Your task to perform on an android device: change the upload size in google photos Image 0: 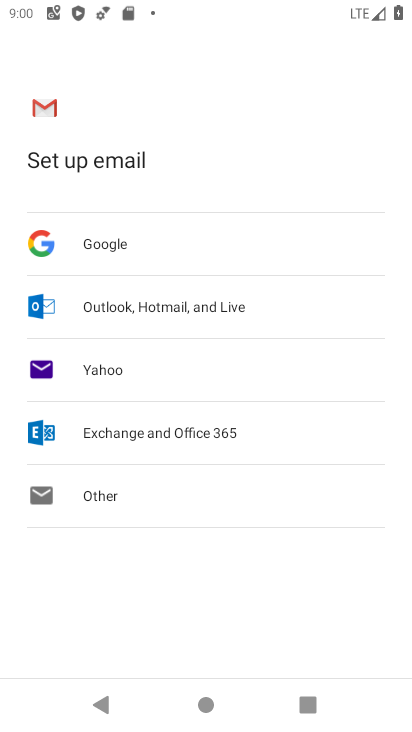
Step 0: press home button
Your task to perform on an android device: change the upload size in google photos Image 1: 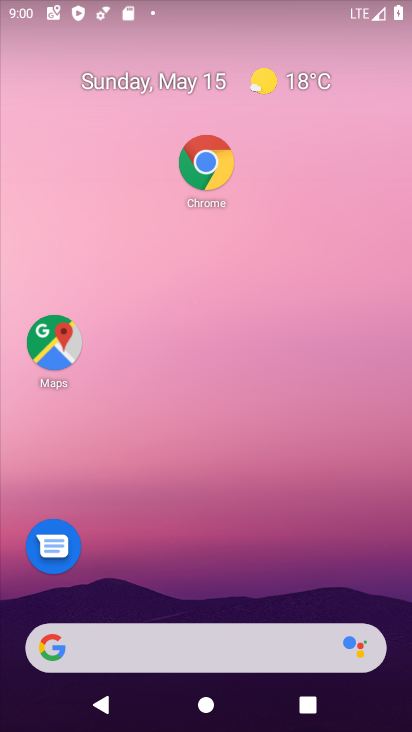
Step 1: drag from (277, 557) to (281, 250)
Your task to perform on an android device: change the upload size in google photos Image 2: 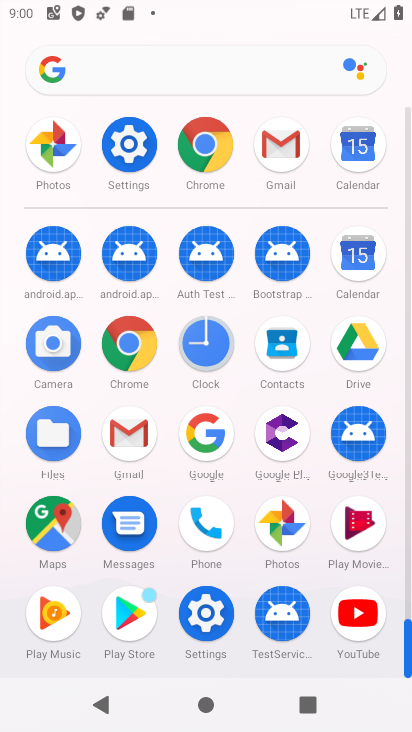
Step 2: click (284, 512)
Your task to perform on an android device: change the upload size in google photos Image 3: 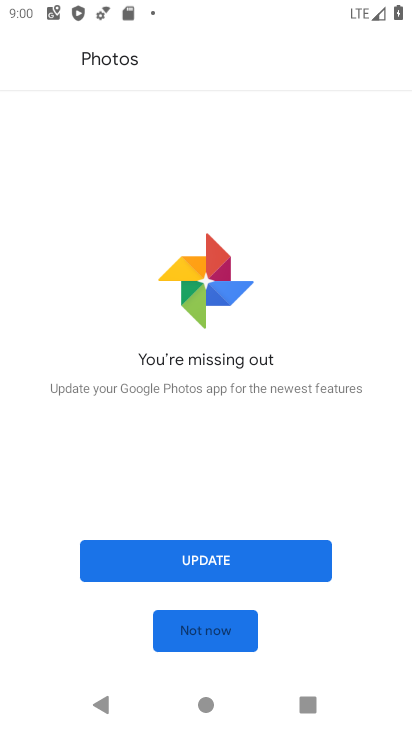
Step 3: click (225, 619)
Your task to perform on an android device: change the upload size in google photos Image 4: 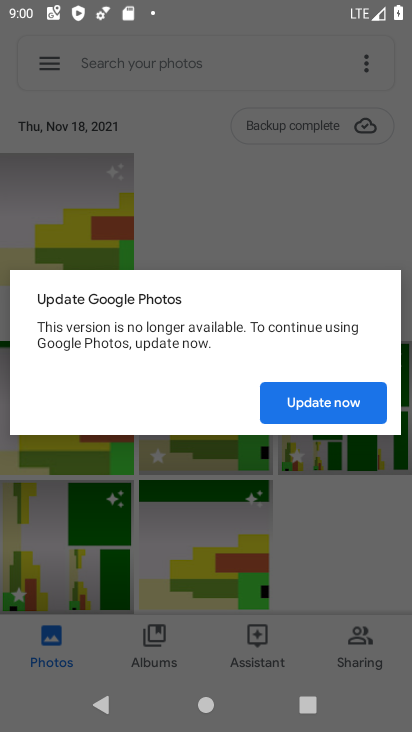
Step 4: click (311, 399)
Your task to perform on an android device: change the upload size in google photos Image 5: 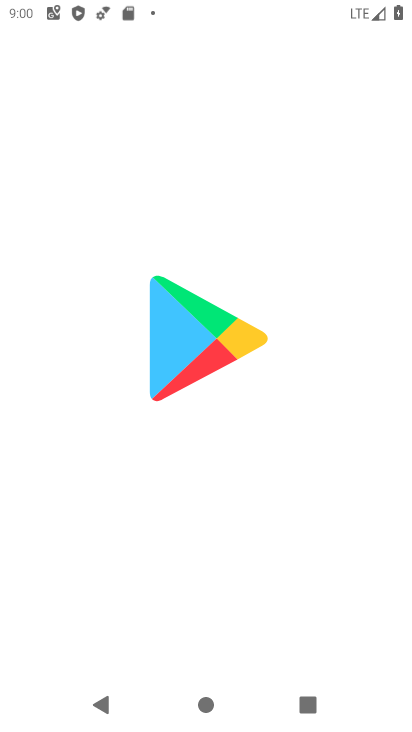
Step 5: press back button
Your task to perform on an android device: change the upload size in google photos Image 6: 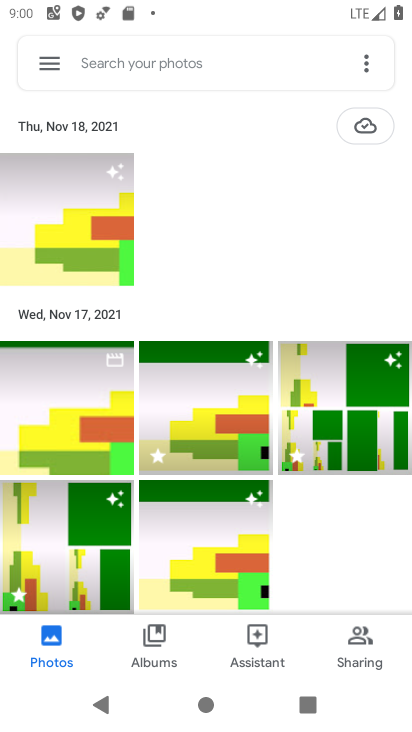
Step 6: click (43, 58)
Your task to perform on an android device: change the upload size in google photos Image 7: 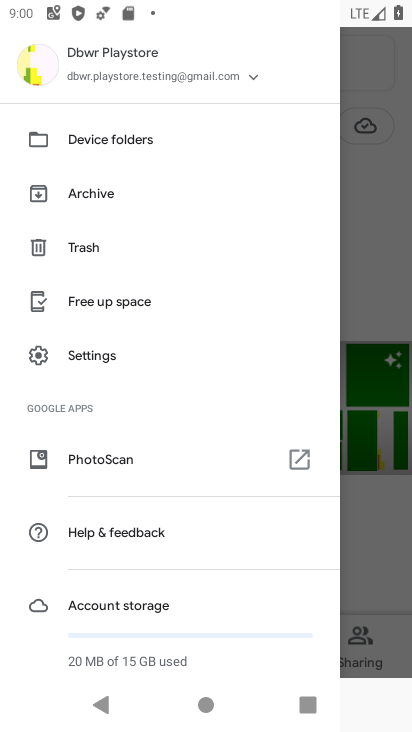
Step 7: click (133, 334)
Your task to perform on an android device: change the upload size in google photos Image 8: 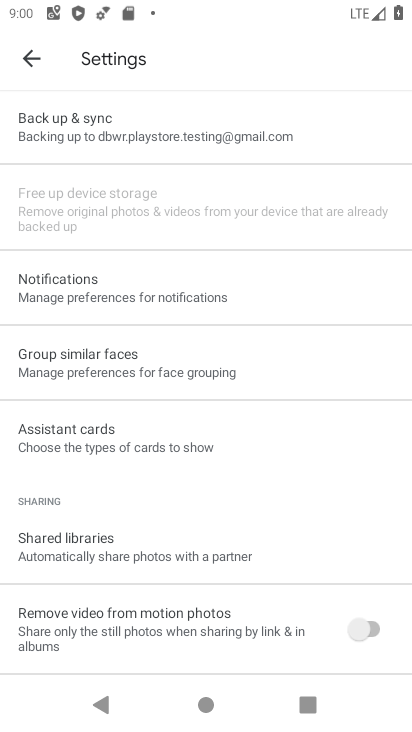
Step 8: click (135, 123)
Your task to perform on an android device: change the upload size in google photos Image 9: 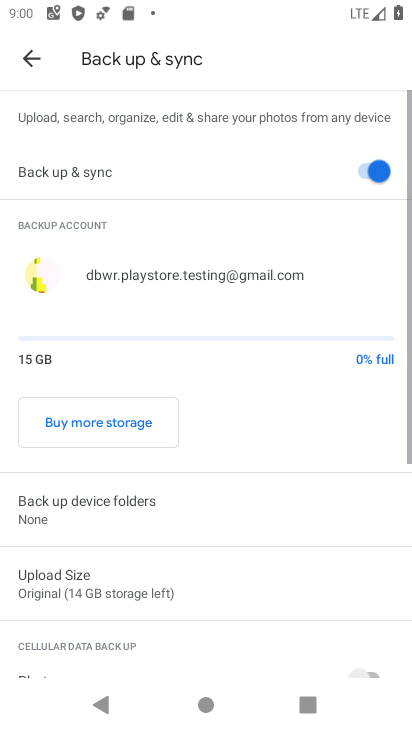
Step 9: click (130, 583)
Your task to perform on an android device: change the upload size in google photos Image 10: 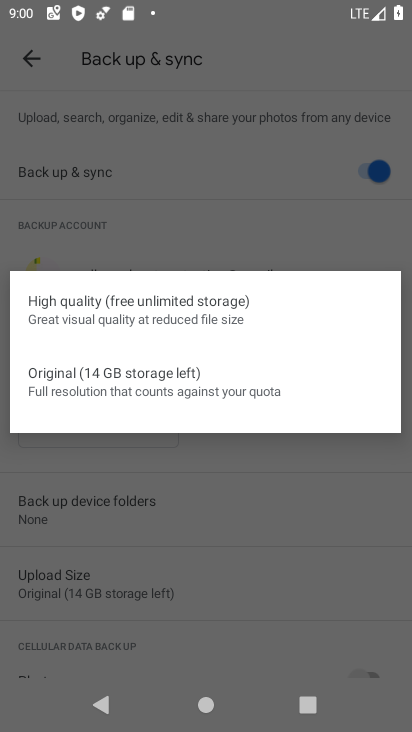
Step 10: click (111, 316)
Your task to perform on an android device: change the upload size in google photos Image 11: 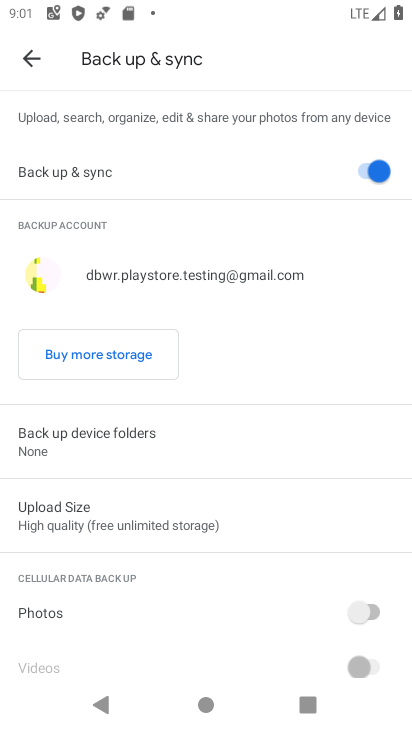
Step 11: task complete